Your task to perform on an android device: set the stopwatch Image 0: 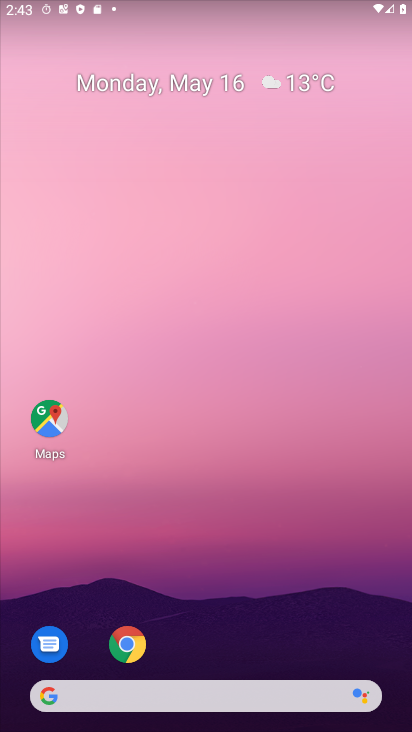
Step 0: drag from (211, 682) to (195, 115)
Your task to perform on an android device: set the stopwatch Image 1: 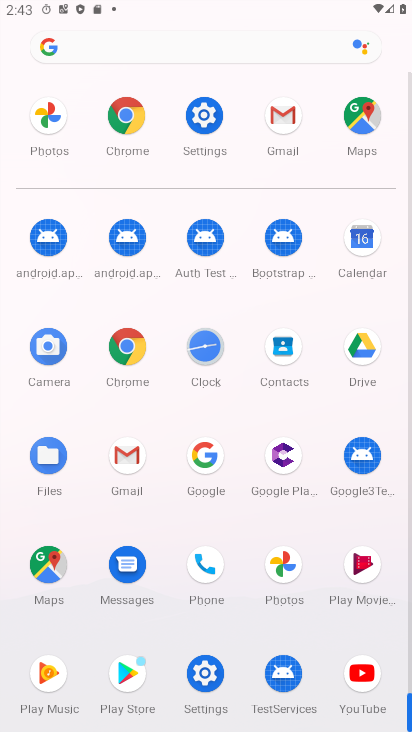
Step 1: click (193, 341)
Your task to perform on an android device: set the stopwatch Image 2: 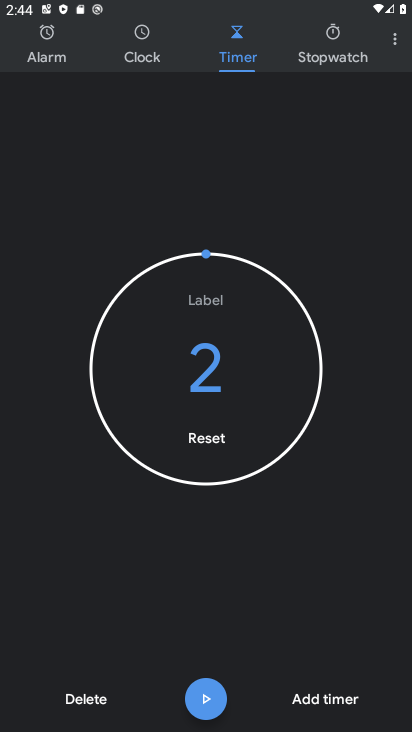
Step 2: click (333, 64)
Your task to perform on an android device: set the stopwatch Image 3: 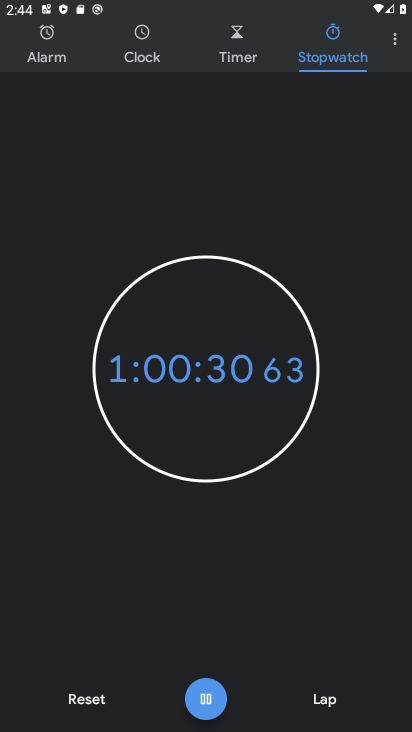
Step 3: click (79, 702)
Your task to perform on an android device: set the stopwatch Image 4: 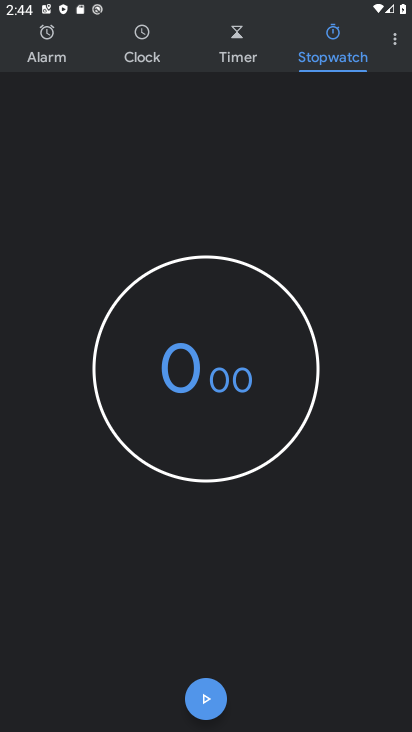
Step 4: click (214, 692)
Your task to perform on an android device: set the stopwatch Image 5: 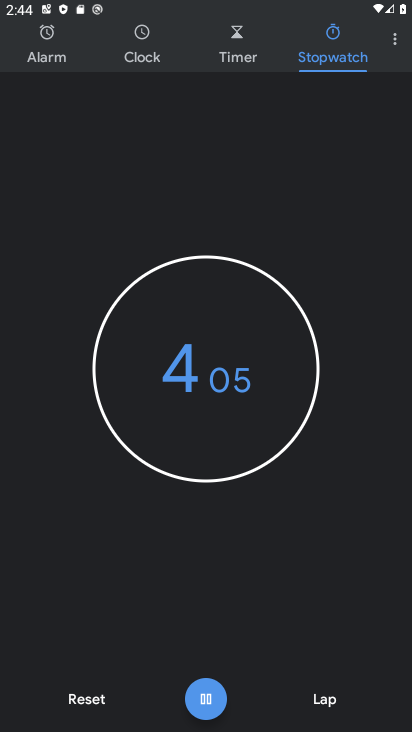
Step 5: task complete